Your task to perform on an android device: Open ESPN.com Image 0: 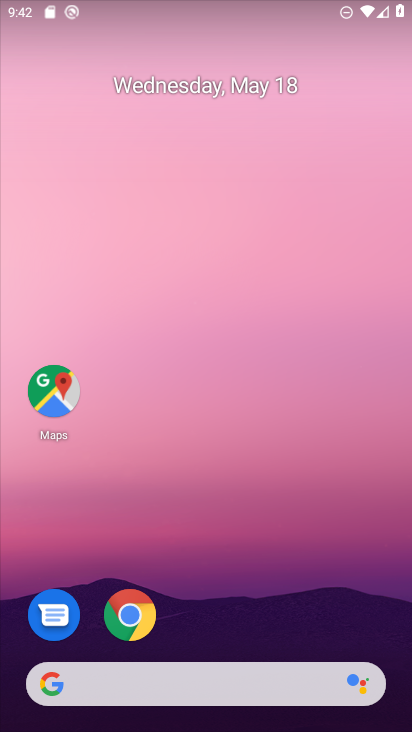
Step 0: drag from (221, 627) to (214, 76)
Your task to perform on an android device: Open ESPN.com Image 1: 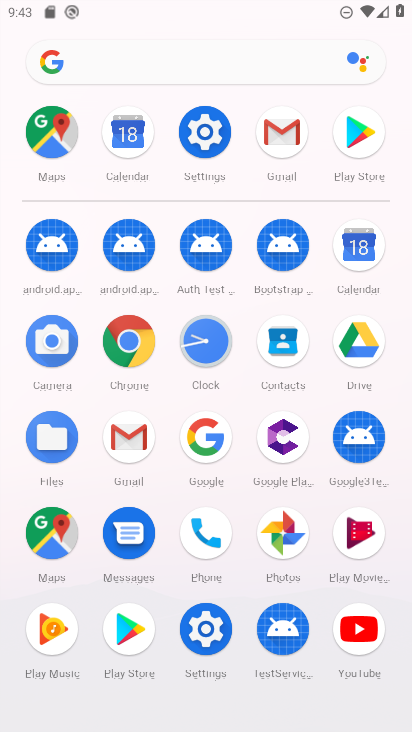
Step 1: click (212, 433)
Your task to perform on an android device: Open ESPN.com Image 2: 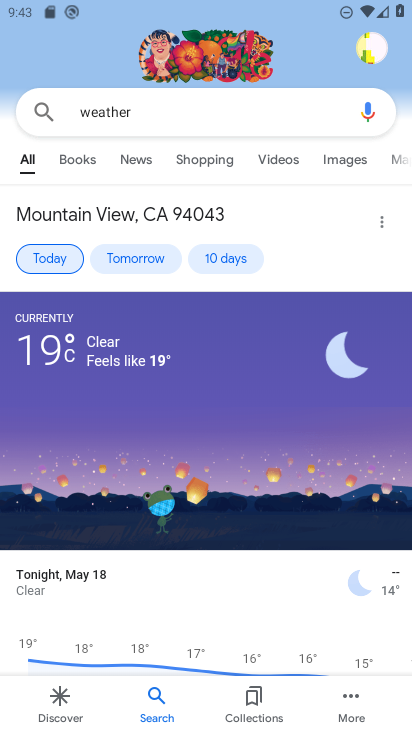
Step 2: click (184, 109)
Your task to perform on an android device: Open ESPN.com Image 3: 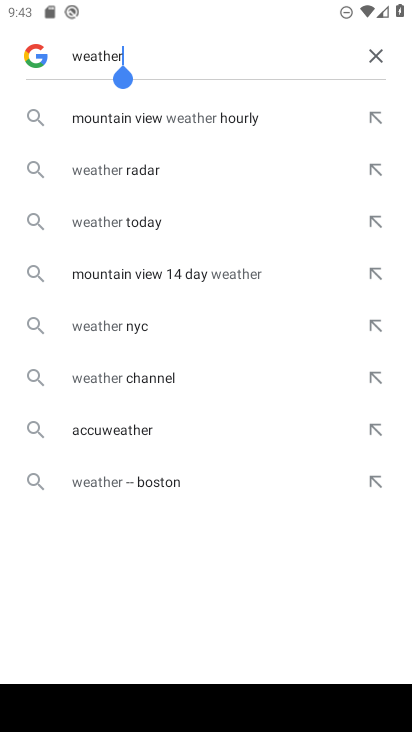
Step 3: click (372, 63)
Your task to perform on an android device: Open ESPN.com Image 4: 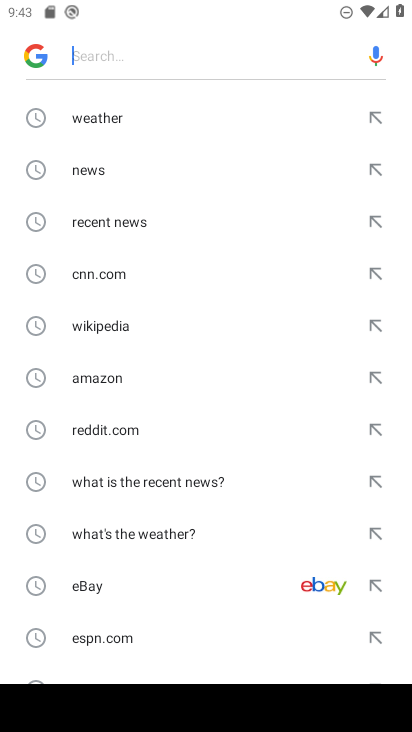
Step 4: click (107, 641)
Your task to perform on an android device: Open ESPN.com Image 5: 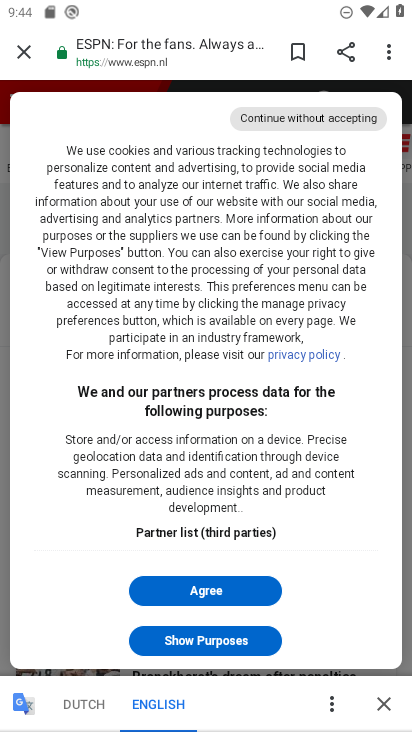
Step 5: task complete